Your task to perform on an android device: visit the assistant section in the google photos Image 0: 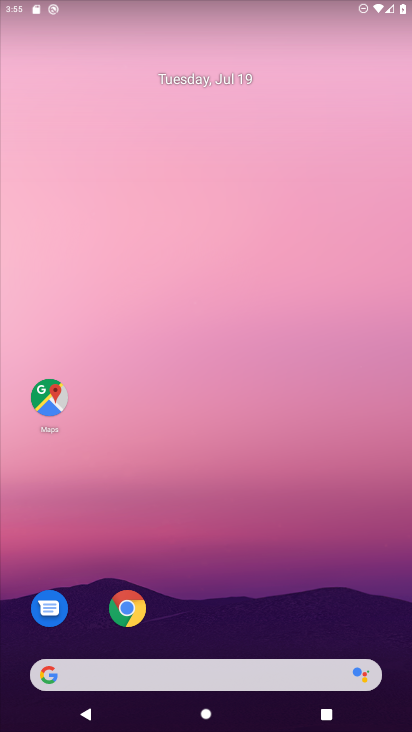
Step 0: drag from (323, 563) to (210, 0)
Your task to perform on an android device: visit the assistant section in the google photos Image 1: 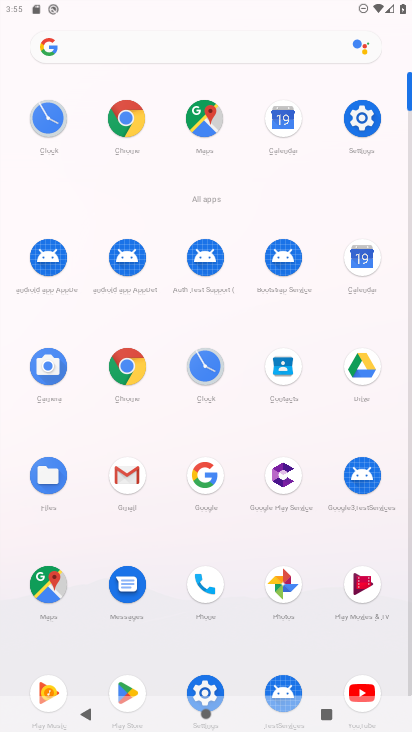
Step 1: click (287, 575)
Your task to perform on an android device: visit the assistant section in the google photos Image 2: 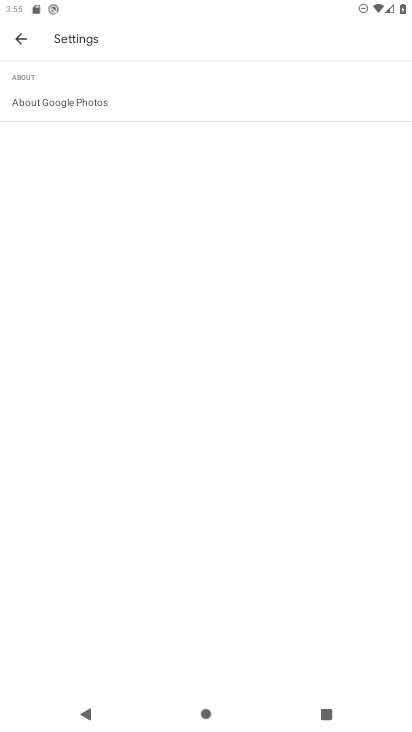
Step 2: click (14, 36)
Your task to perform on an android device: visit the assistant section in the google photos Image 3: 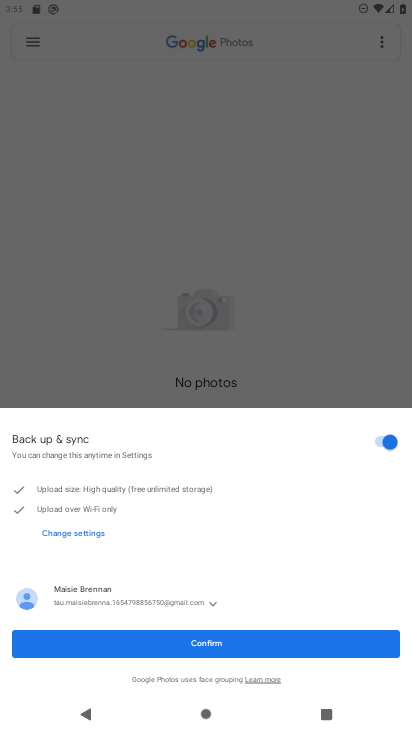
Step 3: click (278, 642)
Your task to perform on an android device: visit the assistant section in the google photos Image 4: 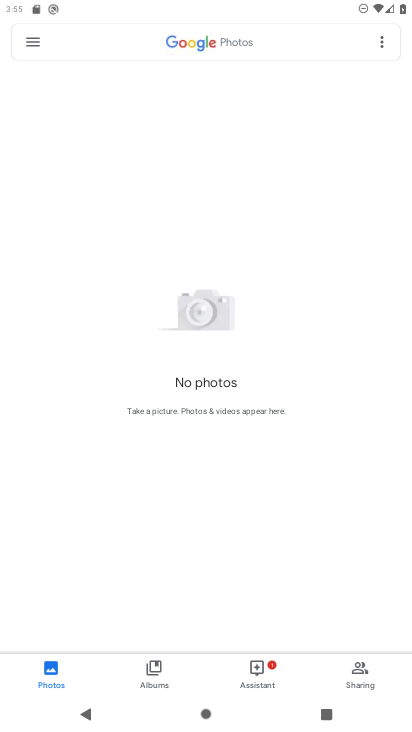
Step 4: click (256, 664)
Your task to perform on an android device: visit the assistant section in the google photos Image 5: 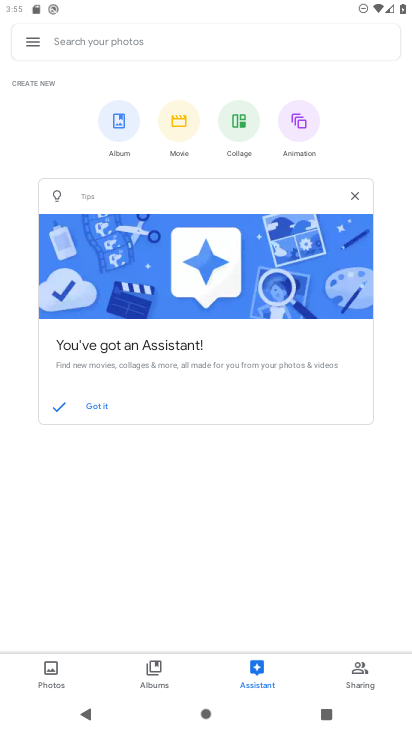
Step 5: task complete